Your task to perform on an android device: allow notifications from all sites in the chrome app Image 0: 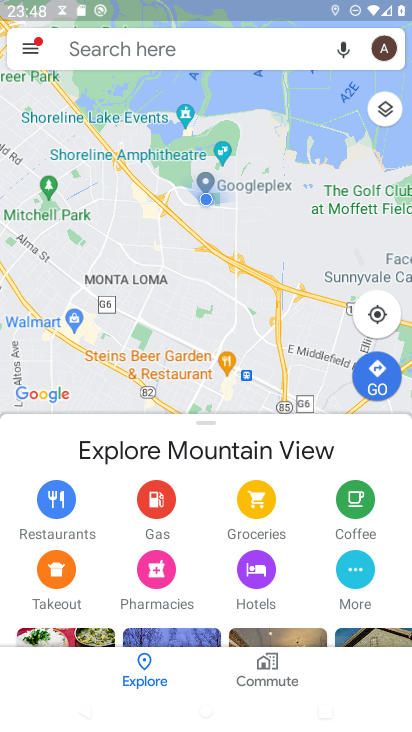
Step 0: press home button
Your task to perform on an android device: allow notifications from all sites in the chrome app Image 1: 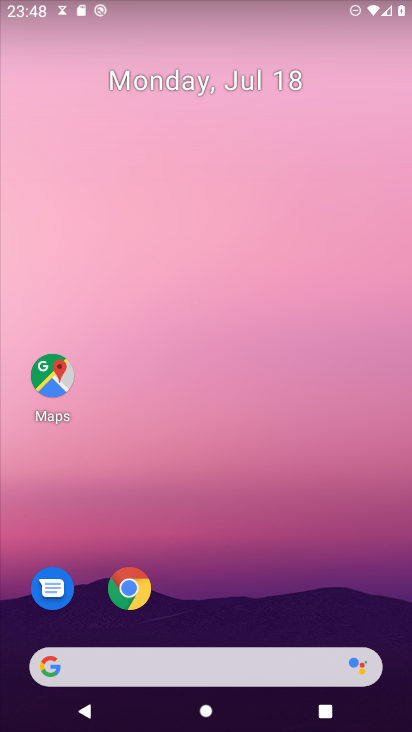
Step 1: click (135, 584)
Your task to perform on an android device: allow notifications from all sites in the chrome app Image 2: 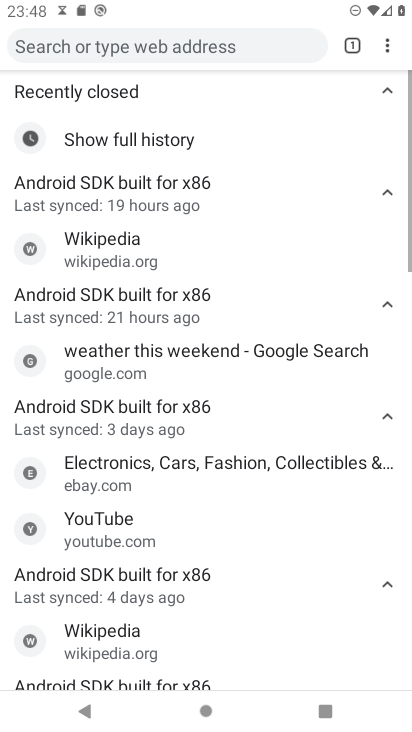
Step 2: drag from (379, 43) to (222, 390)
Your task to perform on an android device: allow notifications from all sites in the chrome app Image 3: 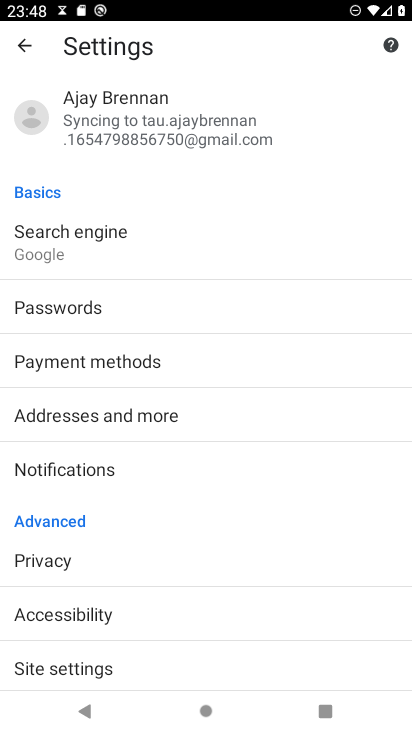
Step 3: click (56, 473)
Your task to perform on an android device: allow notifications from all sites in the chrome app Image 4: 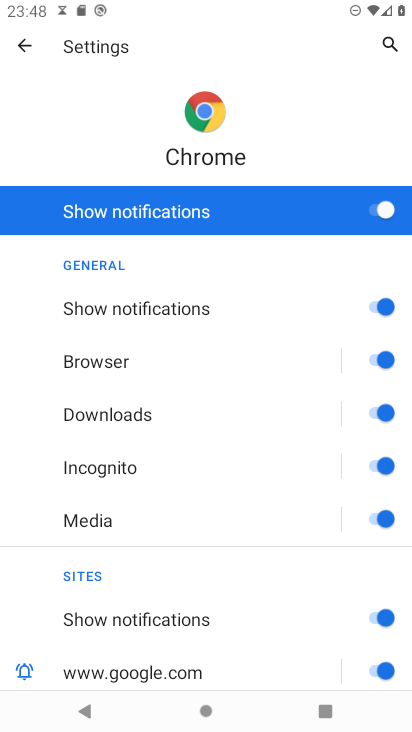
Step 4: task complete